Your task to perform on an android device: Open ESPN.com Image 0: 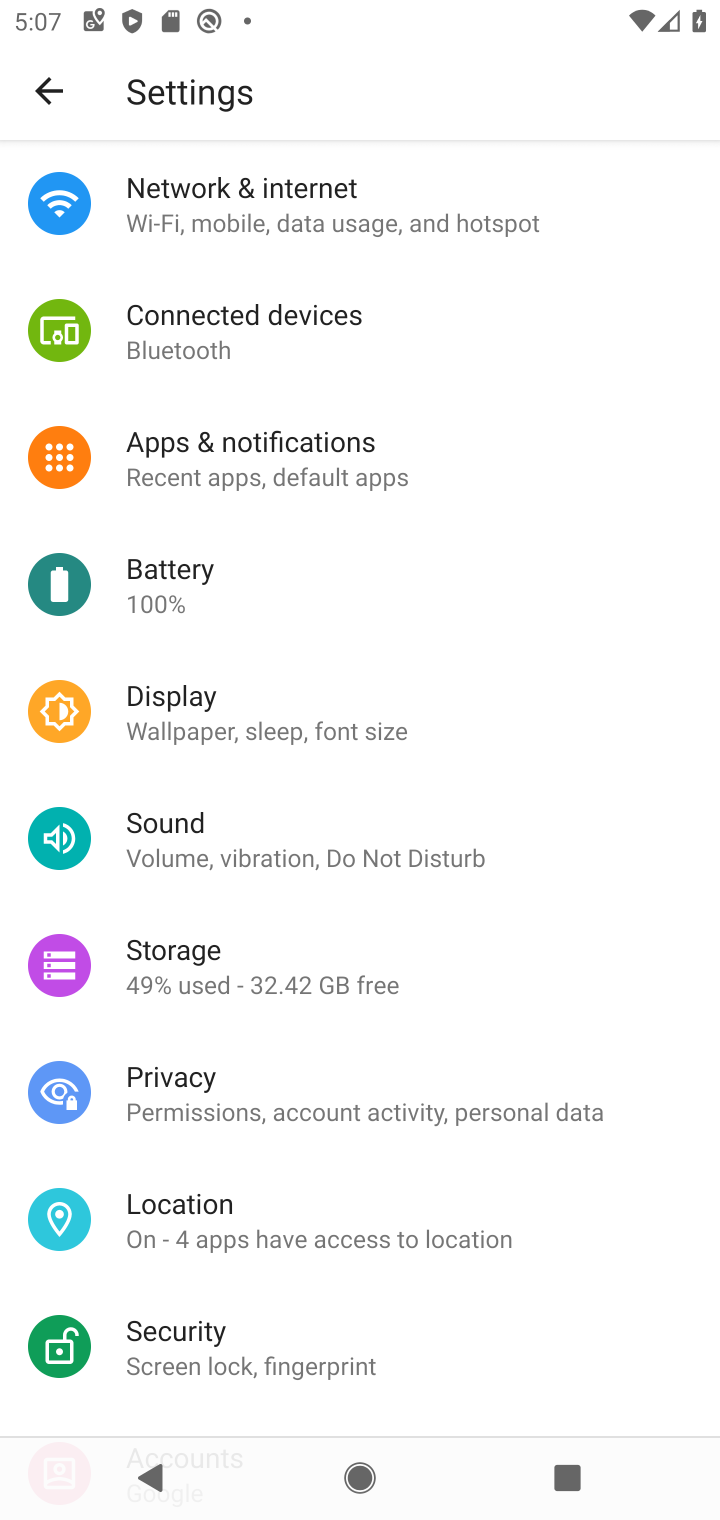
Step 0: press home button
Your task to perform on an android device: Open ESPN.com Image 1: 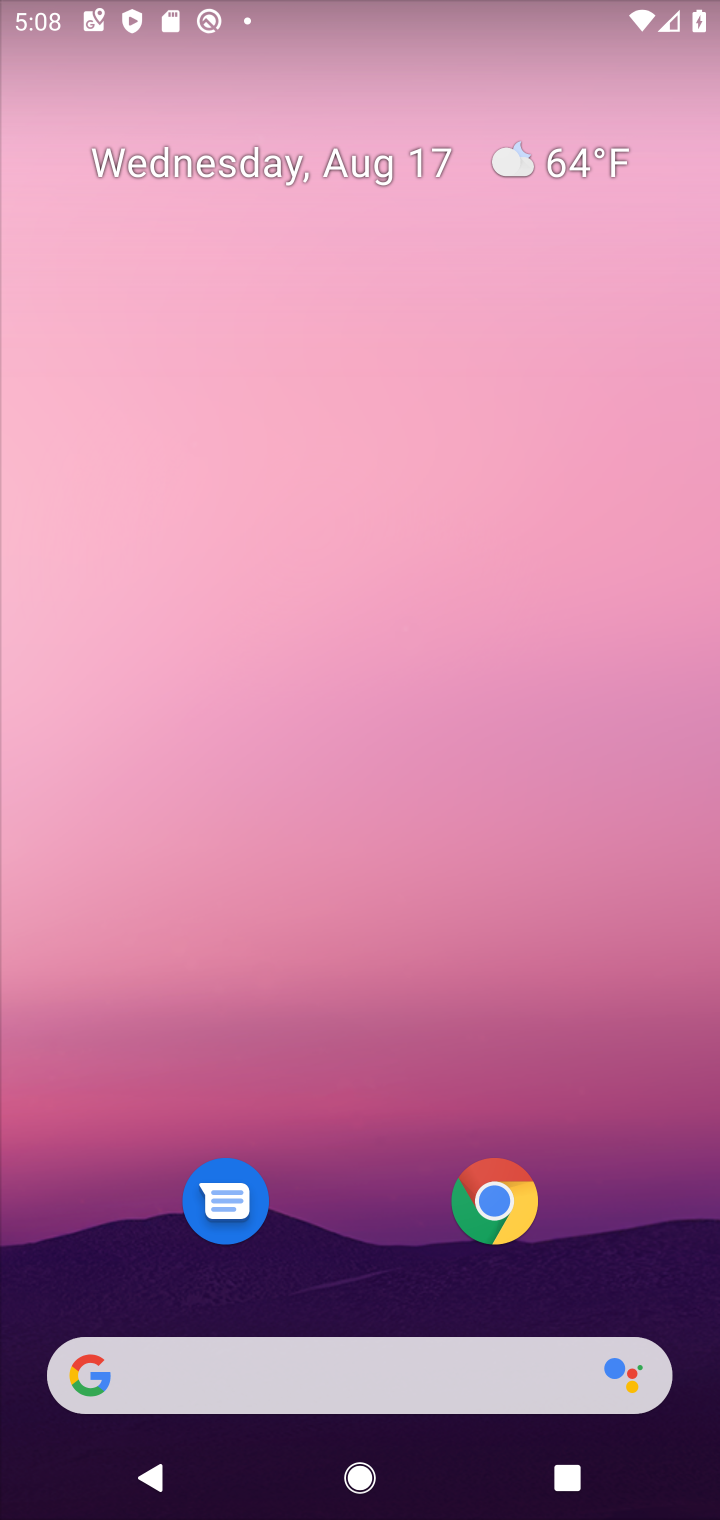
Step 1: click (81, 1399)
Your task to perform on an android device: Open ESPN.com Image 2: 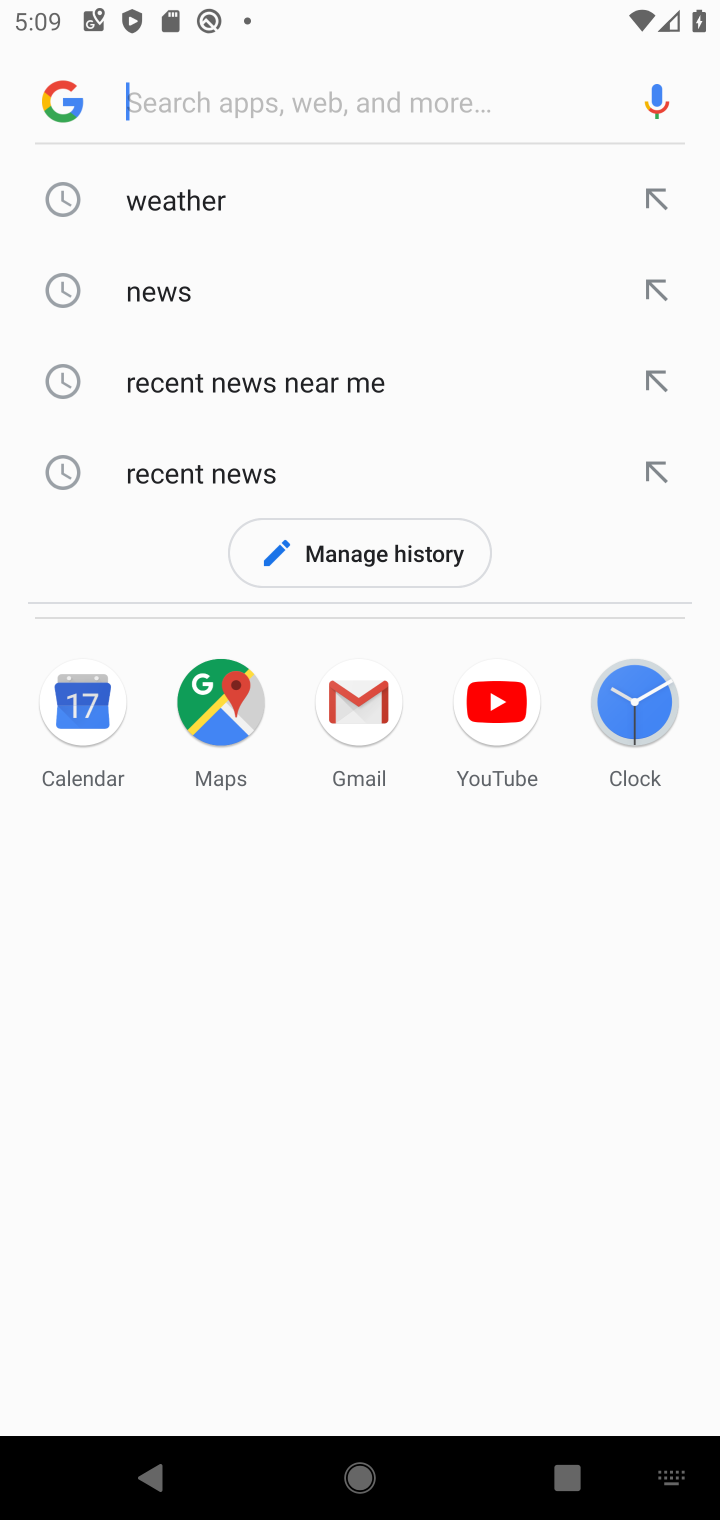
Step 2: press home button
Your task to perform on an android device: Open ESPN.com Image 3: 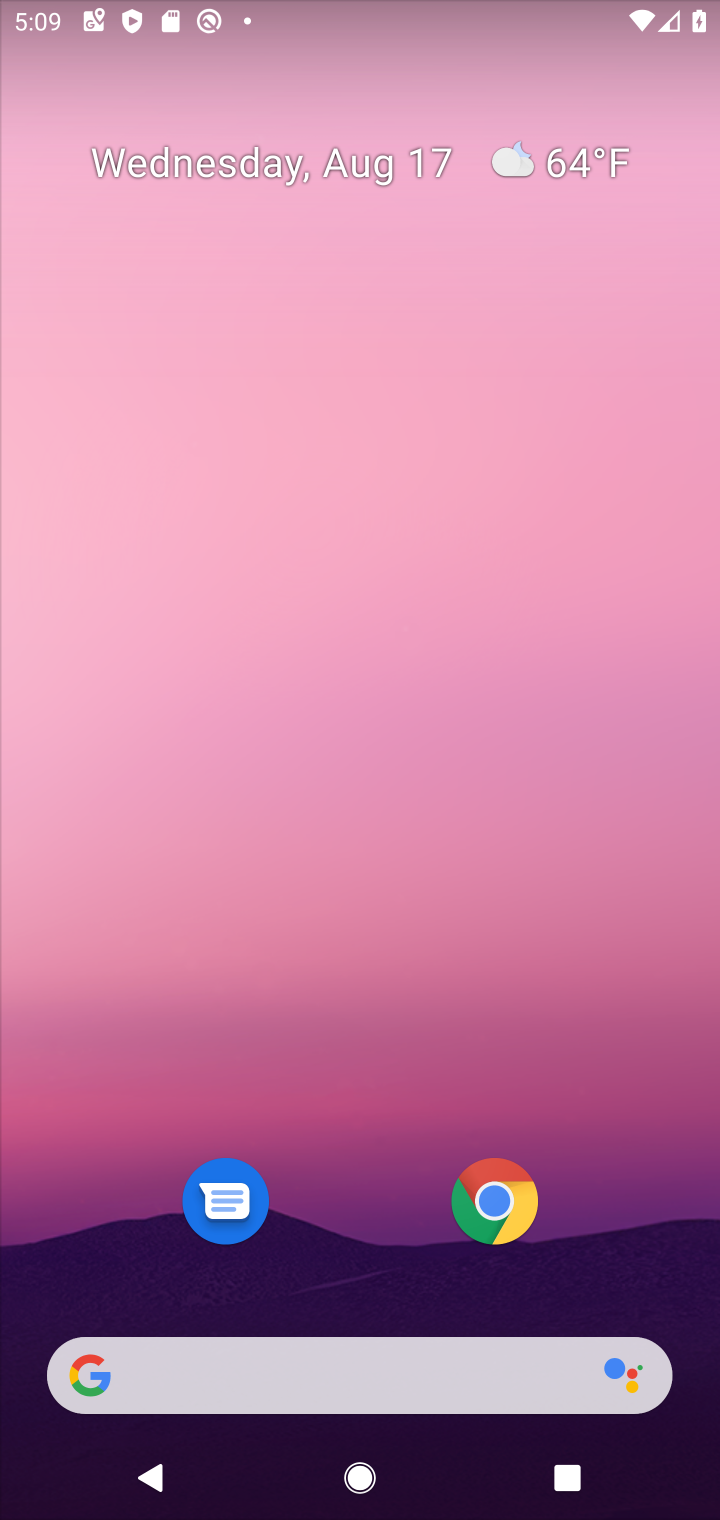
Step 3: click (63, 1388)
Your task to perform on an android device: Open ESPN.com Image 4: 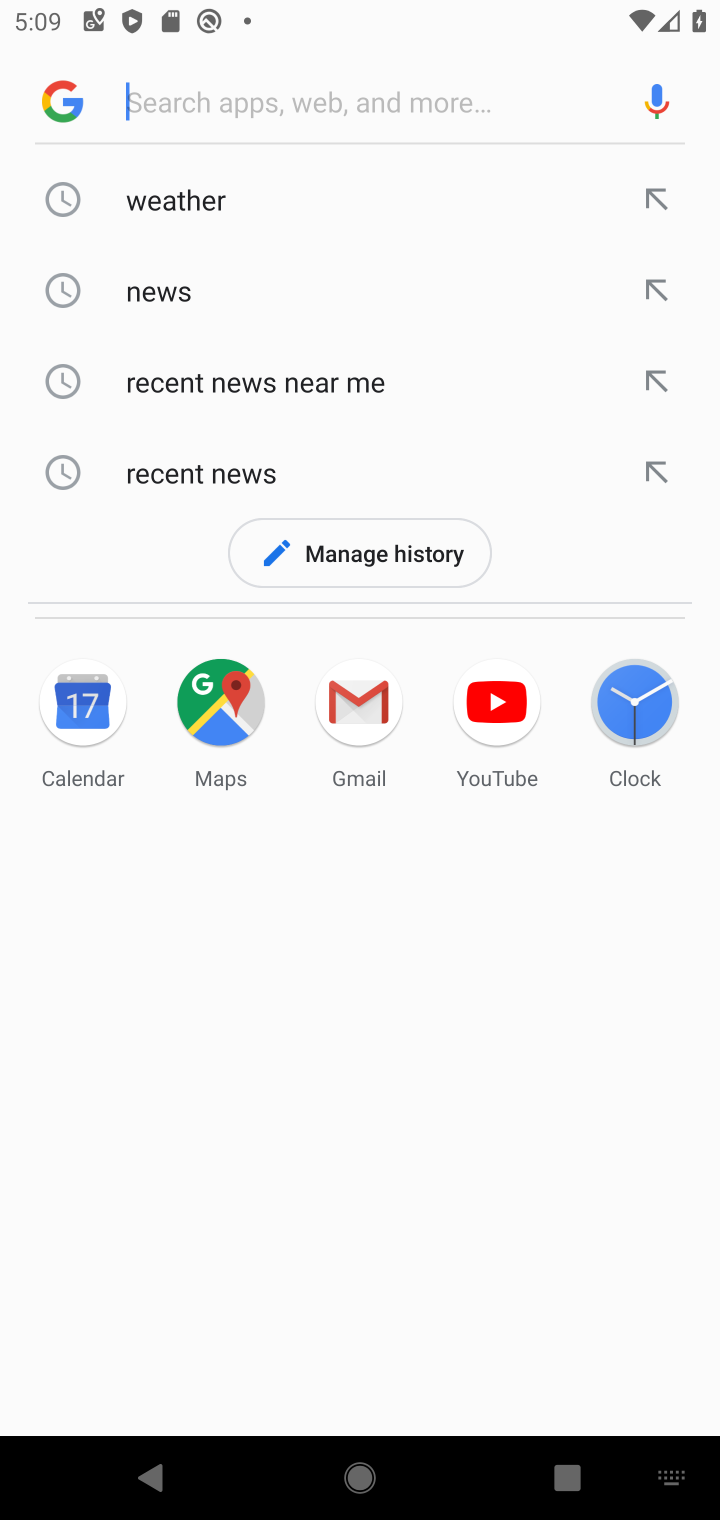
Step 4: type "ESPN.com"
Your task to perform on an android device: Open ESPN.com Image 5: 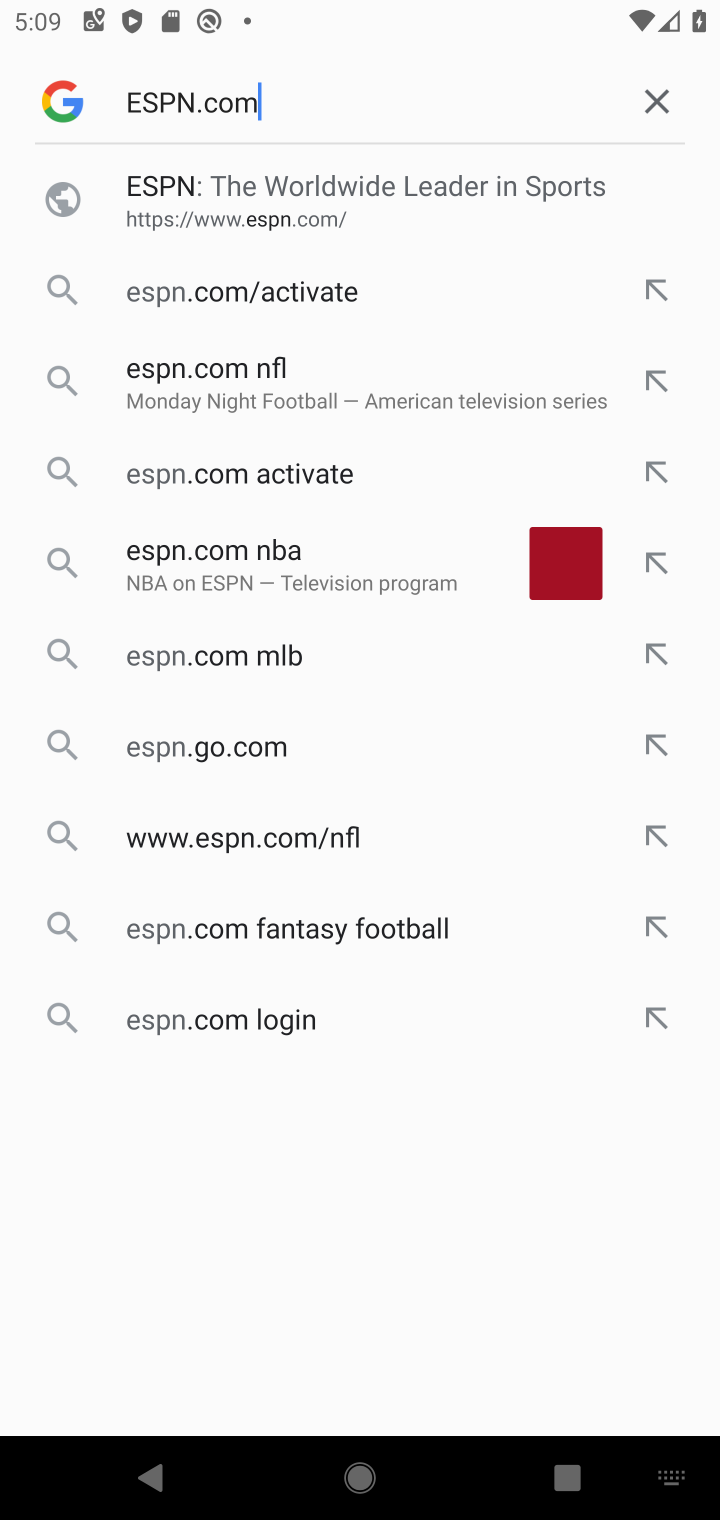
Step 5: press enter
Your task to perform on an android device: Open ESPN.com Image 6: 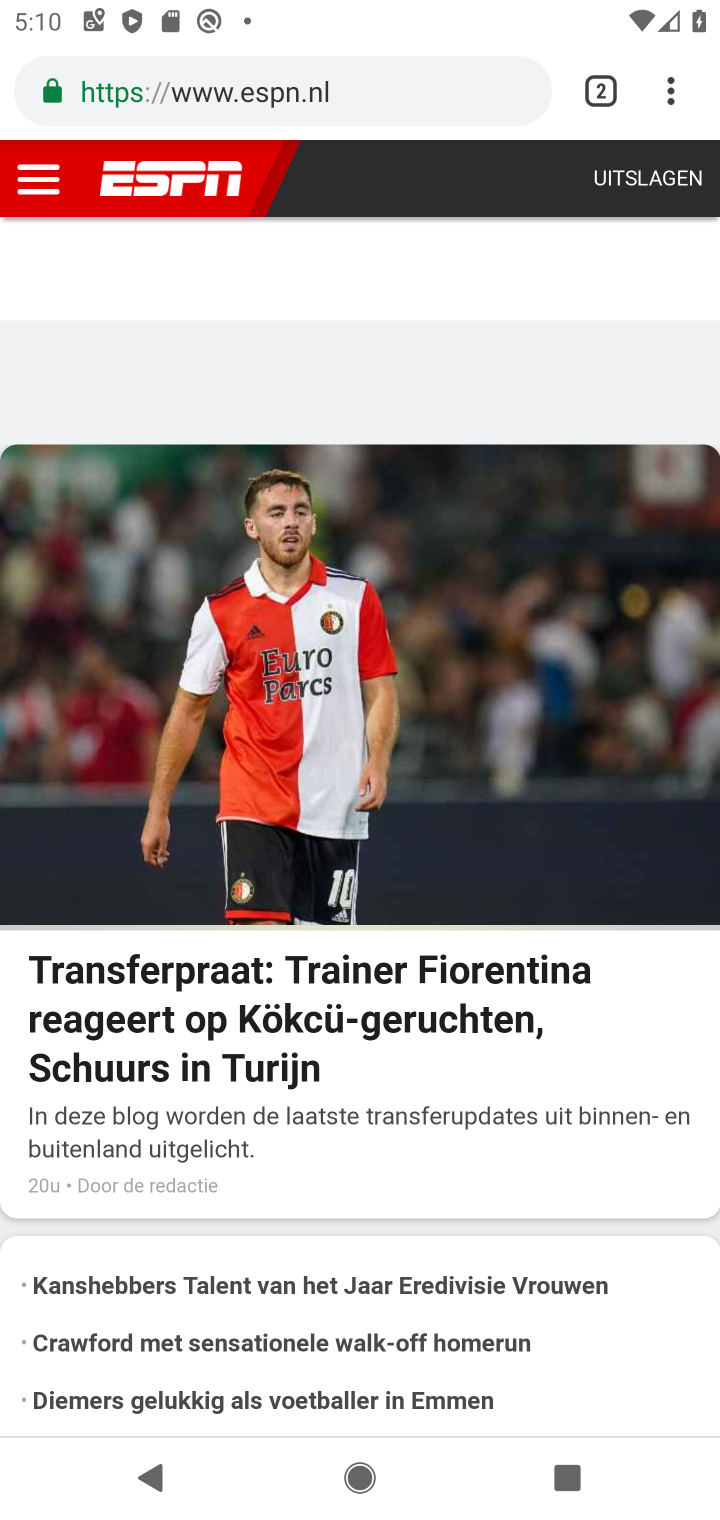
Step 6: task complete